Your task to perform on an android device: Clear the shopping cart on bestbuy.com. Add macbook pro to the cart on bestbuy.com Image 0: 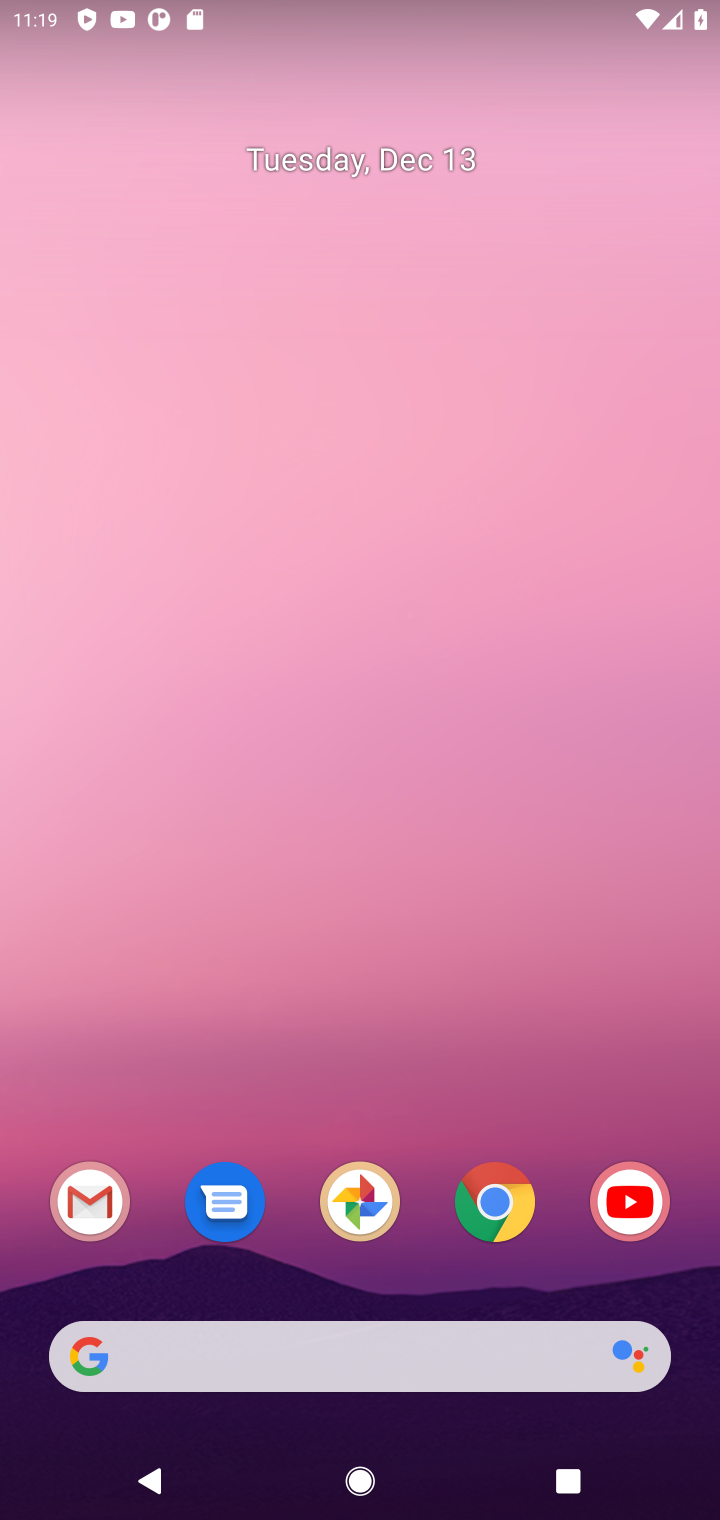
Step 0: click (478, 1221)
Your task to perform on an android device: Clear the shopping cart on bestbuy.com. Add macbook pro to the cart on bestbuy.com Image 1: 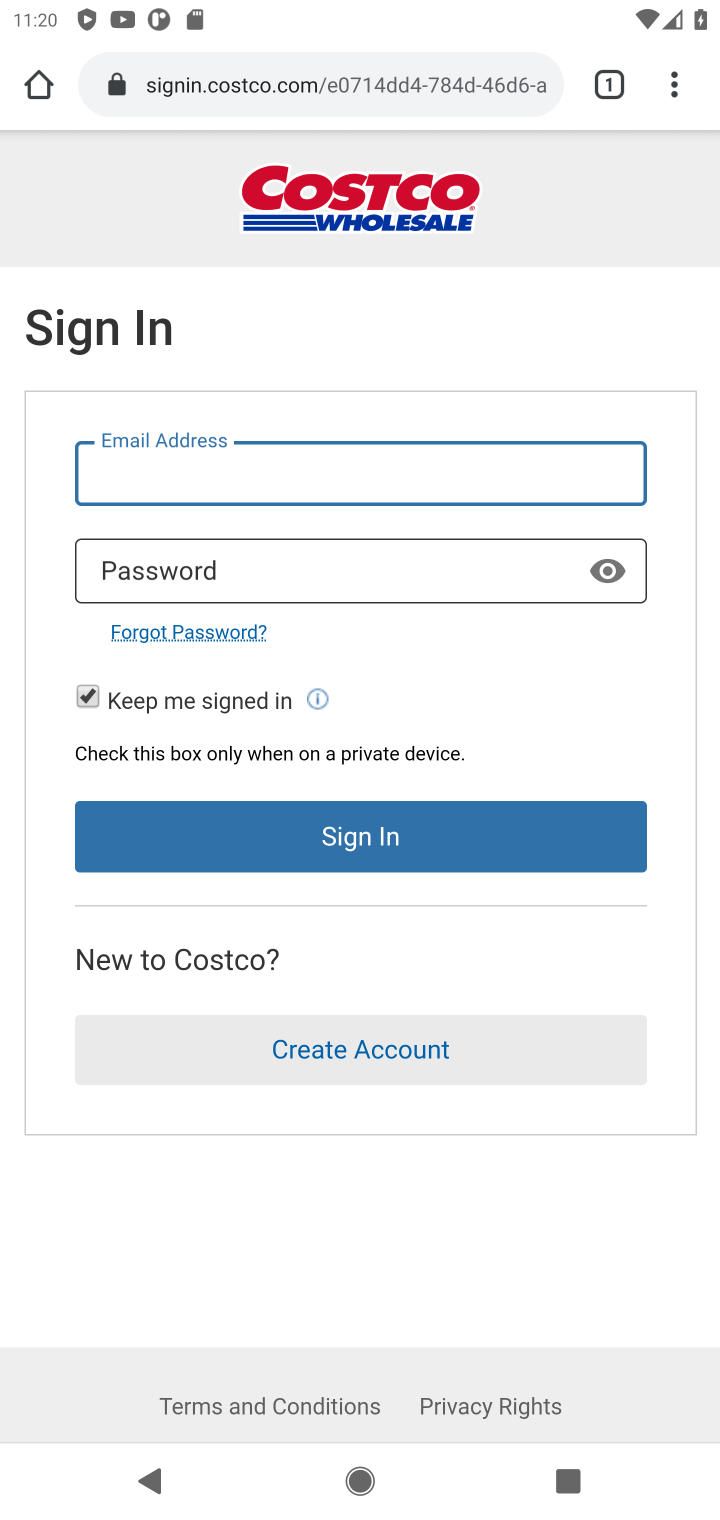
Step 1: click (350, 68)
Your task to perform on an android device: Clear the shopping cart on bestbuy.com. Add macbook pro to the cart on bestbuy.com Image 2: 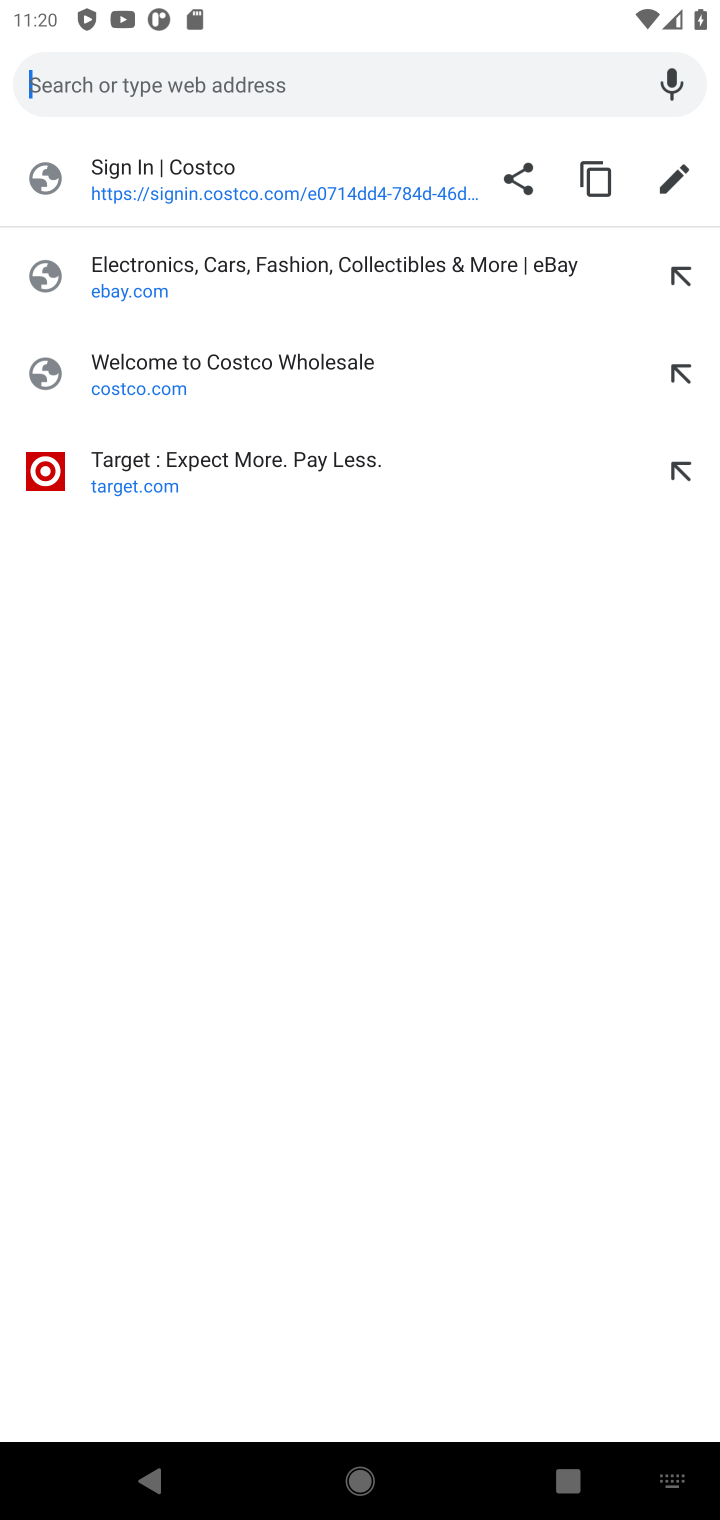
Step 2: type "bestbuy"
Your task to perform on an android device: Clear the shopping cart on bestbuy.com. Add macbook pro to the cart on bestbuy.com Image 3: 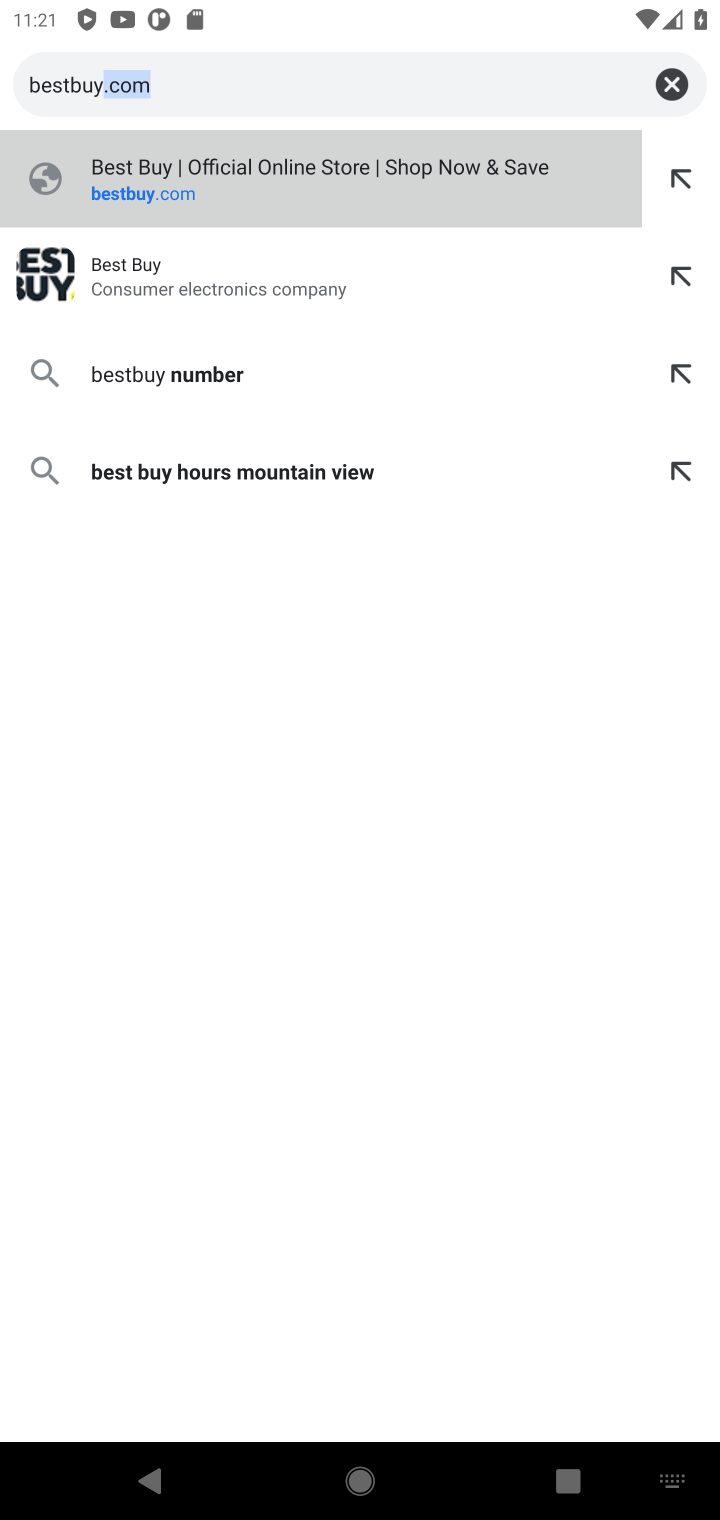
Step 3: click (349, 174)
Your task to perform on an android device: Clear the shopping cart on bestbuy.com. Add macbook pro to the cart on bestbuy.com Image 4: 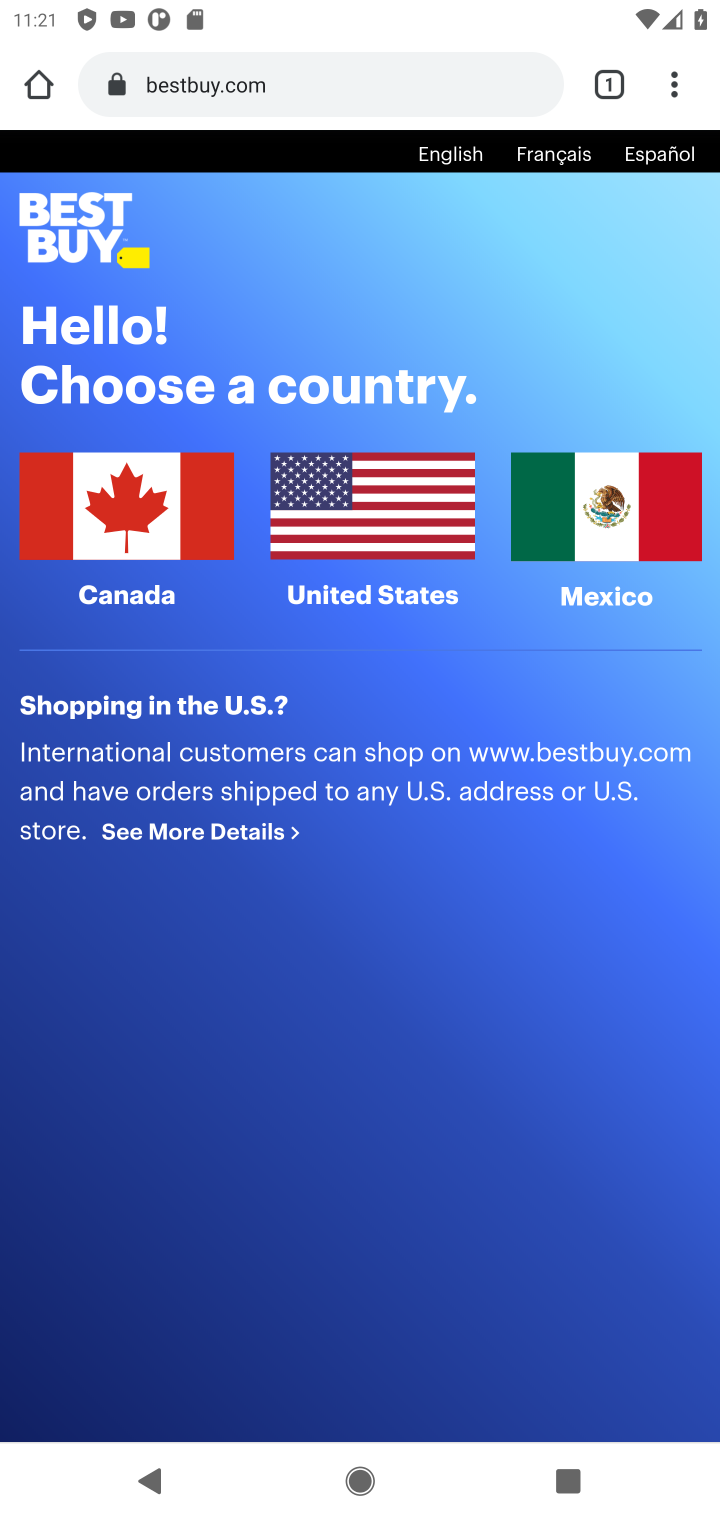
Step 4: click (366, 515)
Your task to perform on an android device: Clear the shopping cart on bestbuy.com. Add macbook pro to the cart on bestbuy.com Image 5: 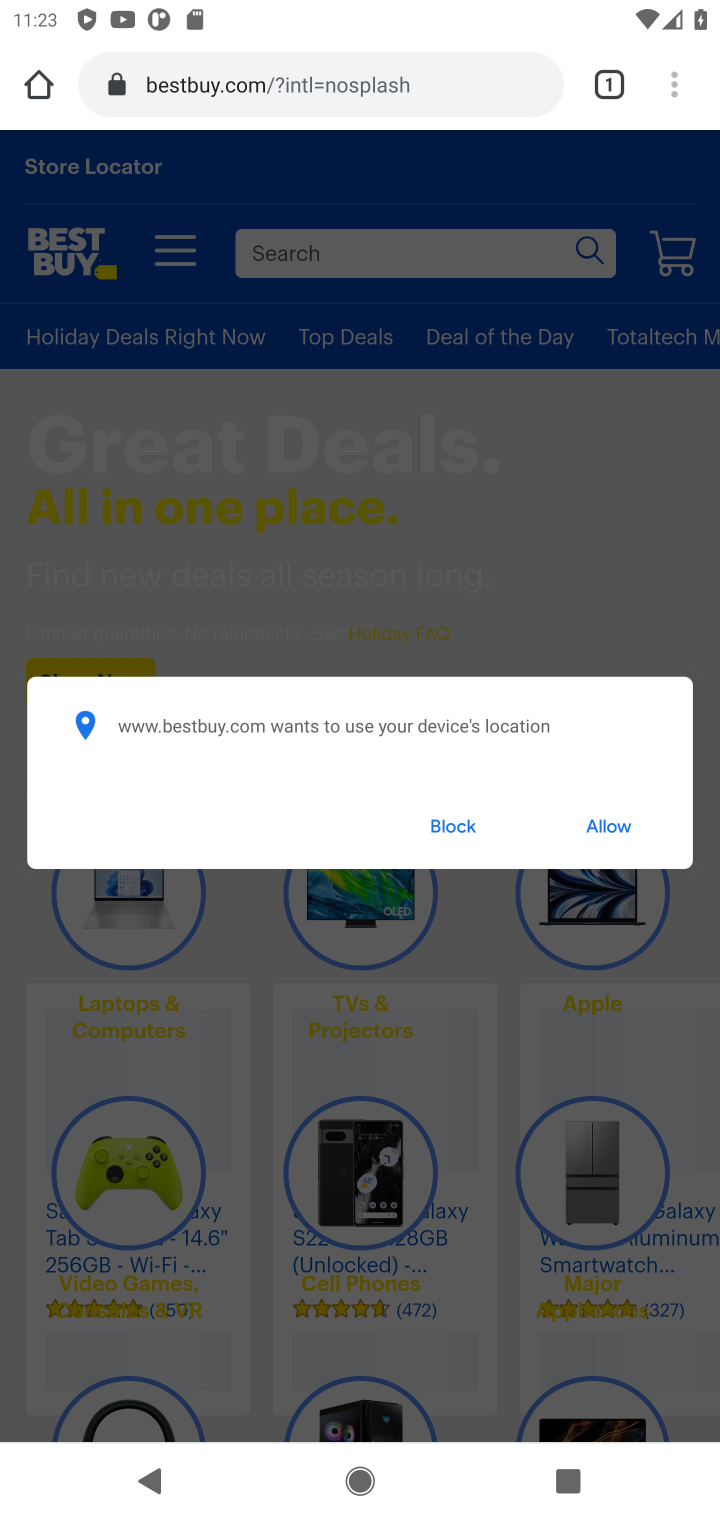
Step 5: click (442, 825)
Your task to perform on an android device: Clear the shopping cart on bestbuy.com. Add macbook pro to the cart on bestbuy.com Image 6: 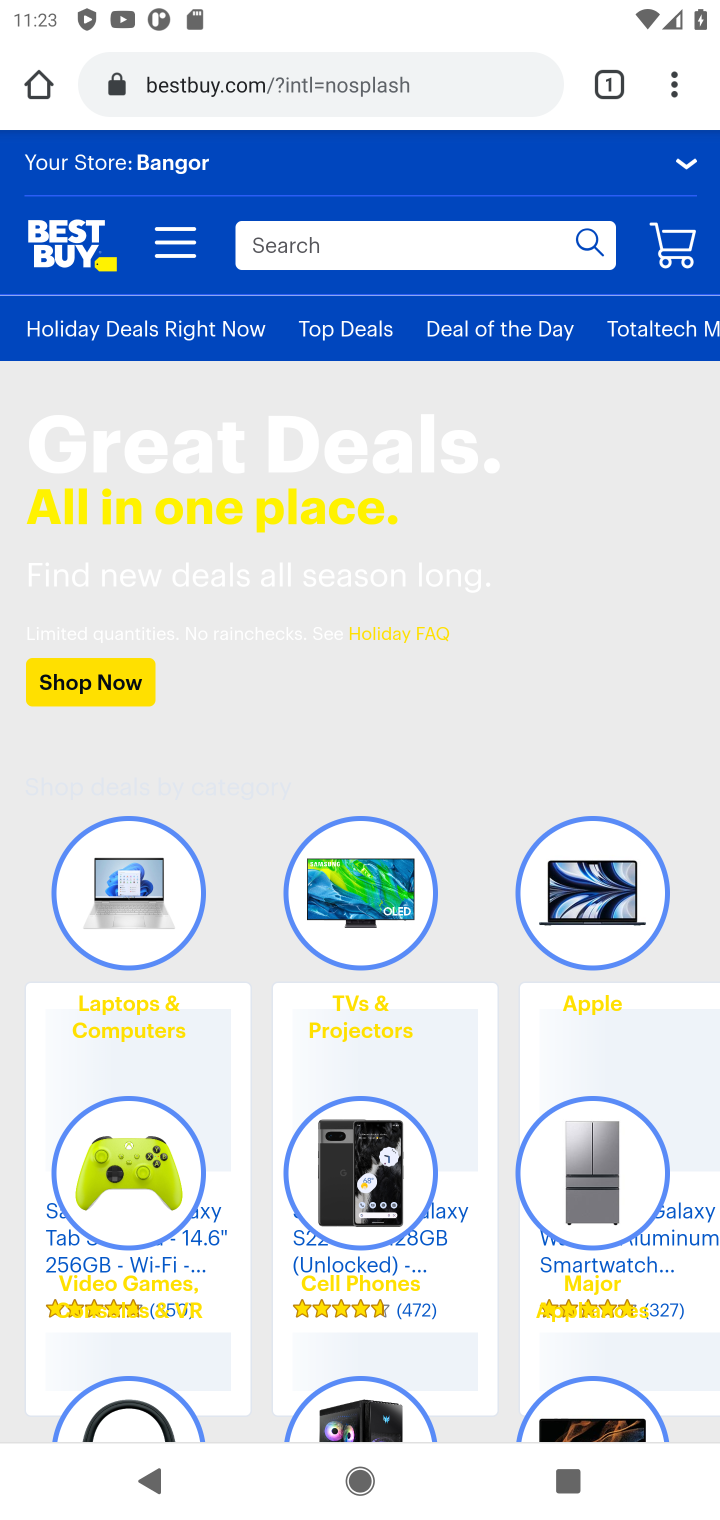
Step 6: click (469, 243)
Your task to perform on an android device: Clear the shopping cart on bestbuy.com. Add macbook pro to the cart on bestbuy.com Image 7: 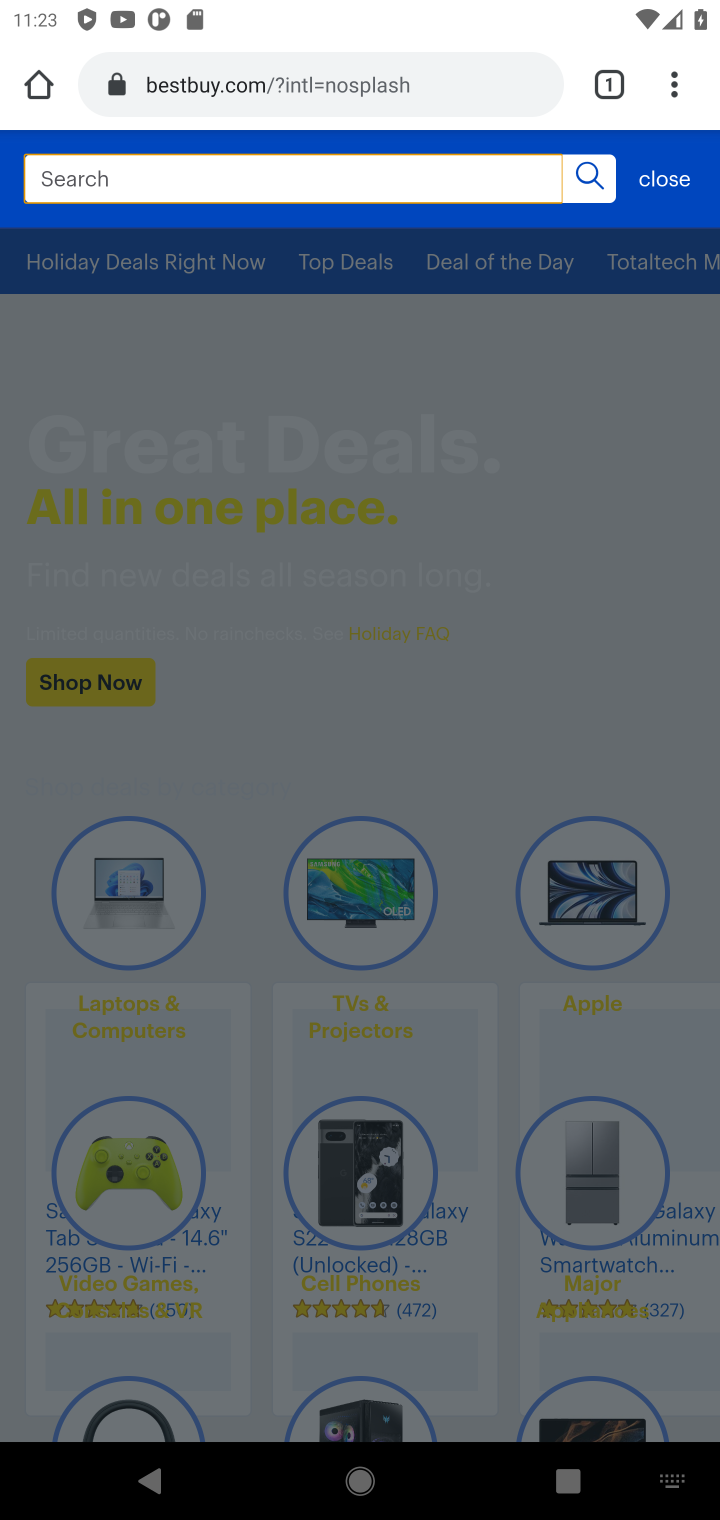
Step 7: type "macbook pro"
Your task to perform on an android device: Clear the shopping cart on bestbuy.com. Add macbook pro to the cart on bestbuy.com Image 8: 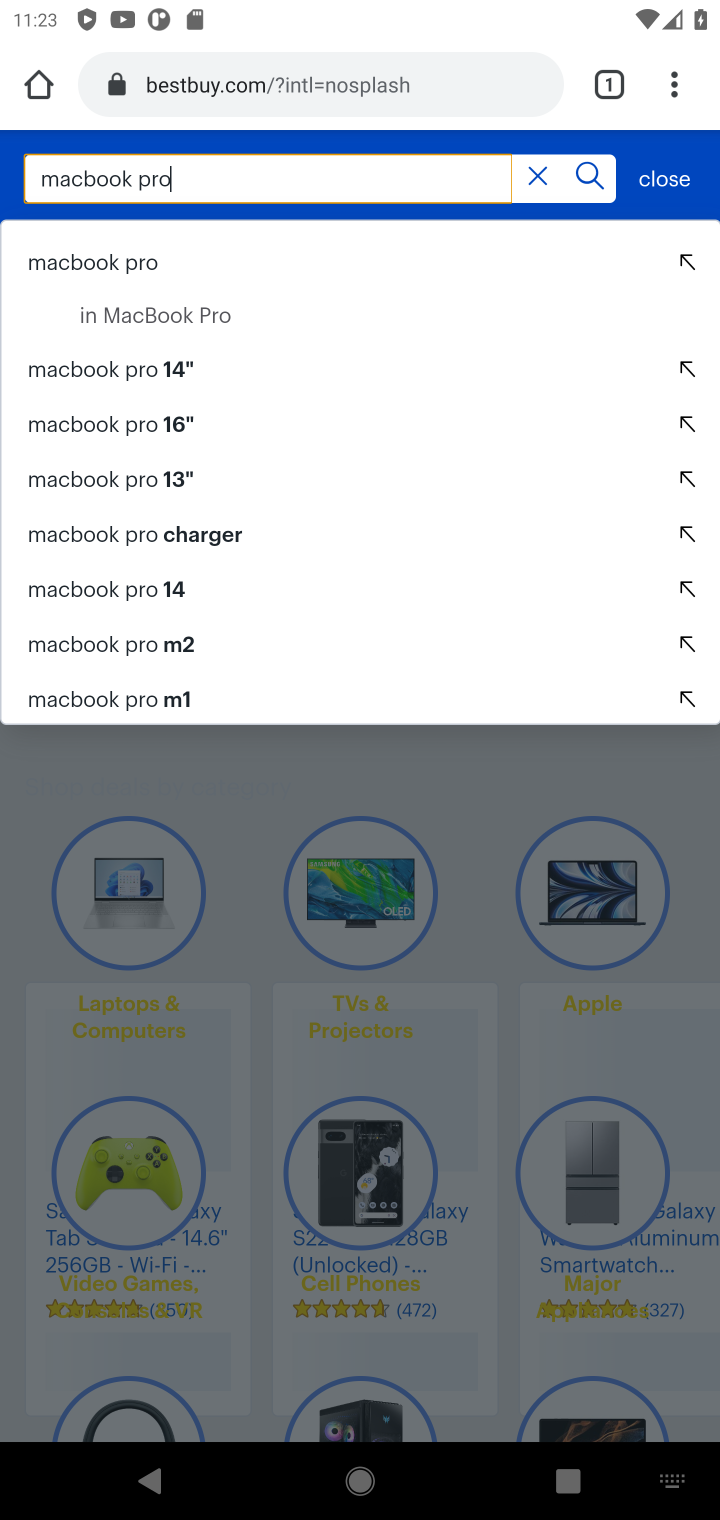
Step 8: click (151, 268)
Your task to perform on an android device: Clear the shopping cart on bestbuy.com. Add macbook pro to the cart on bestbuy.com Image 9: 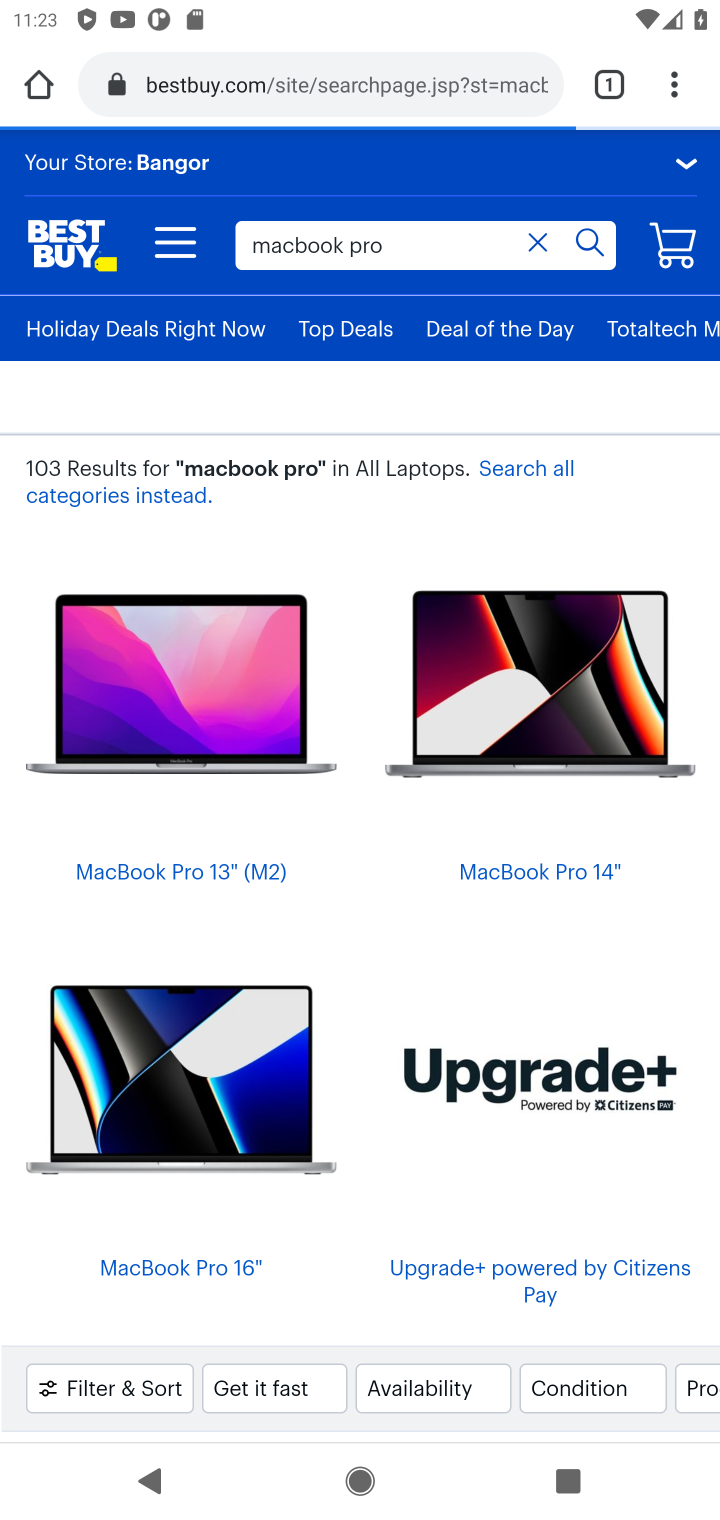
Step 9: click (186, 785)
Your task to perform on an android device: Clear the shopping cart on bestbuy.com. Add macbook pro to the cart on bestbuy.com Image 10: 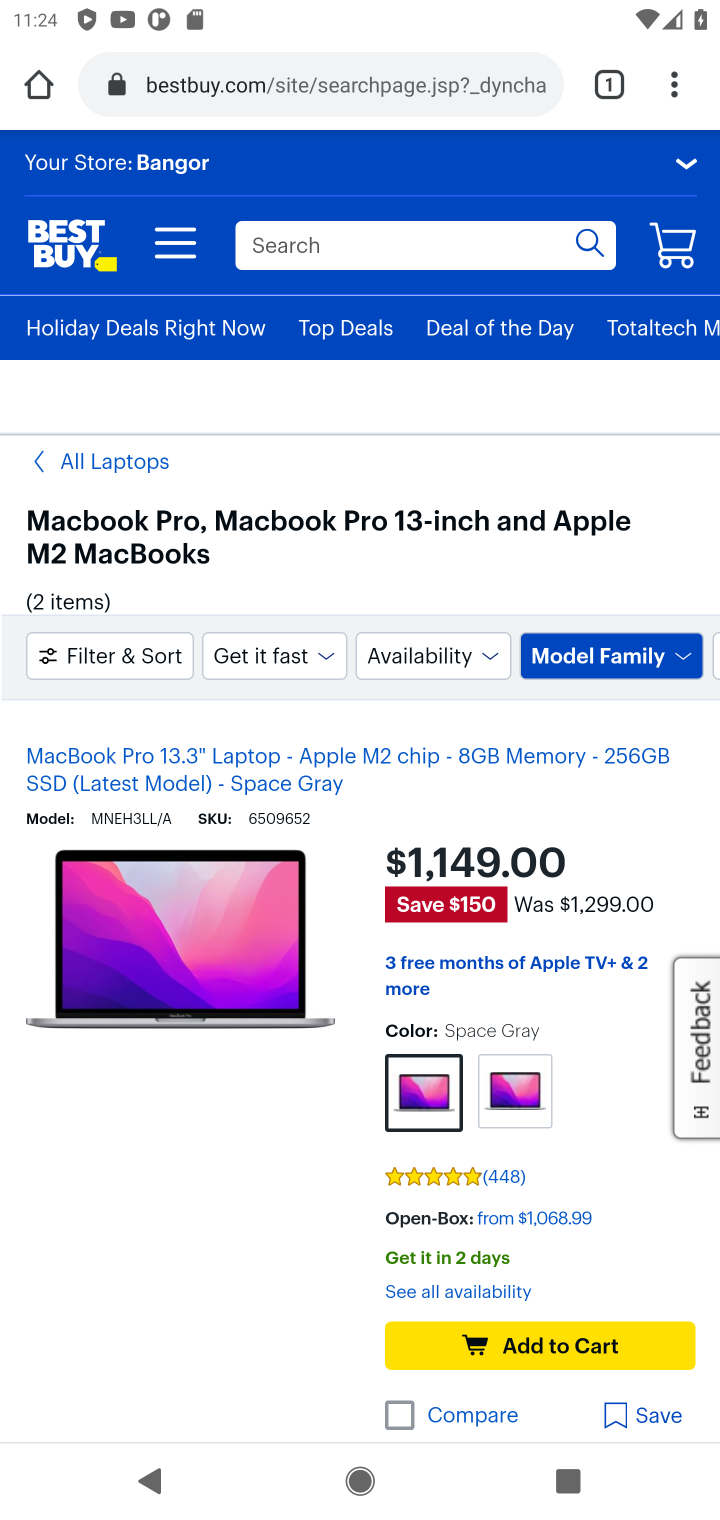
Step 10: click (556, 1338)
Your task to perform on an android device: Clear the shopping cart on bestbuy.com. Add macbook pro to the cart on bestbuy.com Image 11: 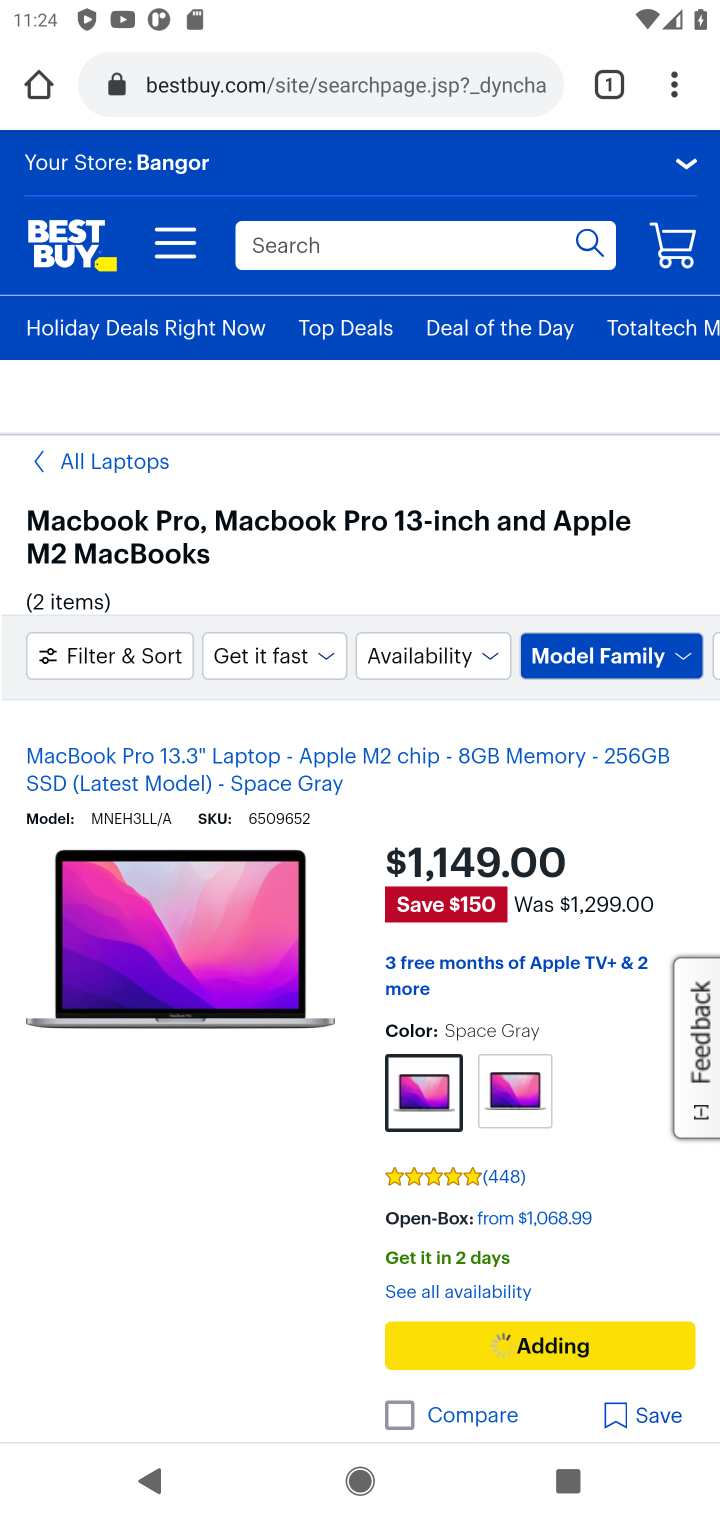
Step 11: task complete